Your task to perform on an android device: see creations saved in the google photos Image 0: 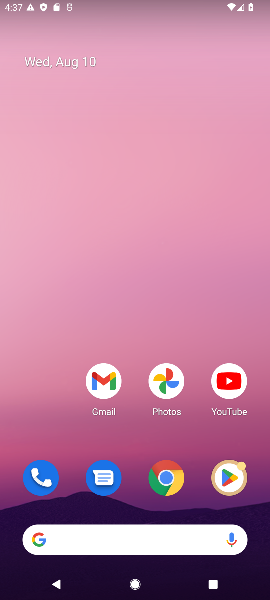
Step 0: click (149, 375)
Your task to perform on an android device: see creations saved in the google photos Image 1: 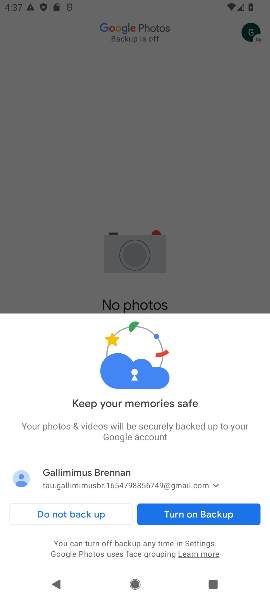
Step 1: click (168, 512)
Your task to perform on an android device: see creations saved in the google photos Image 2: 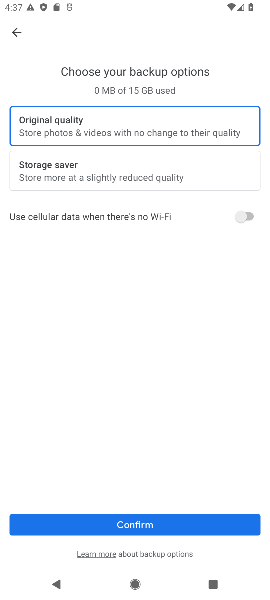
Step 2: click (78, 519)
Your task to perform on an android device: see creations saved in the google photos Image 3: 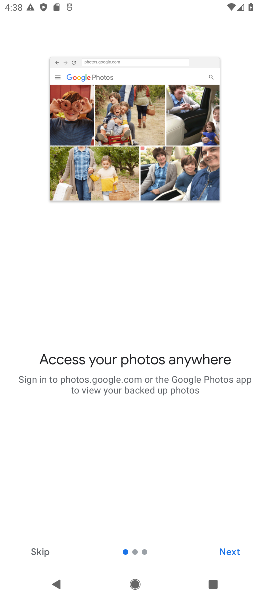
Step 3: click (222, 548)
Your task to perform on an android device: see creations saved in the google photos Image 4: 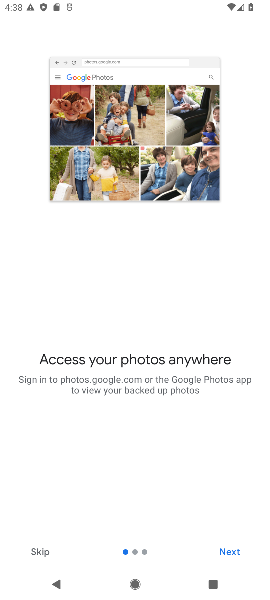
Step 4: click (222, 548)
Your task to perform on an android device: see creations saved in the google photos Image 5: 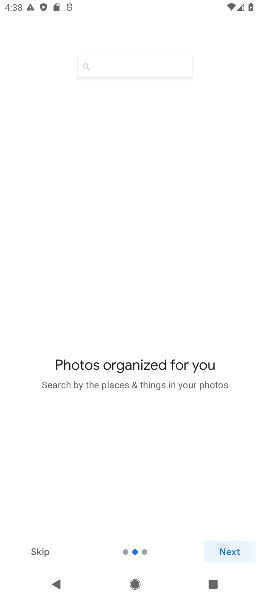
Step 5: click (222, 548)
Your task to perform on an android device: see creations saved in the google photos Image 6: 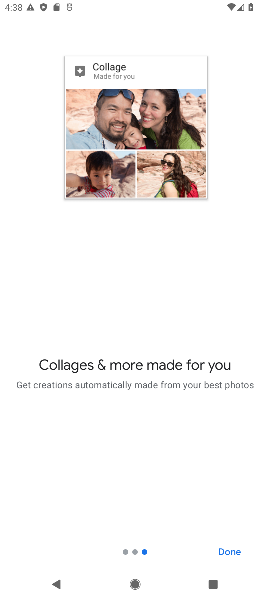
Step 6: click (222, 548)
Your task to perform on an android device: see creations saved in the google photos Image 7: 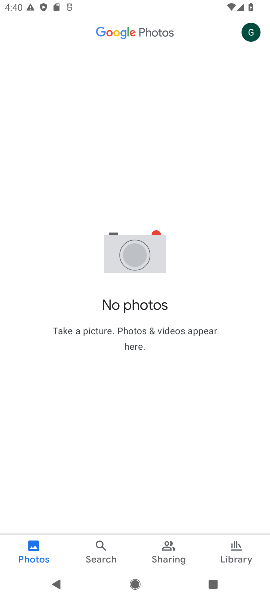
Step 7: task complete